Your task to perform on an android device: Go to CNN.com Image 0: 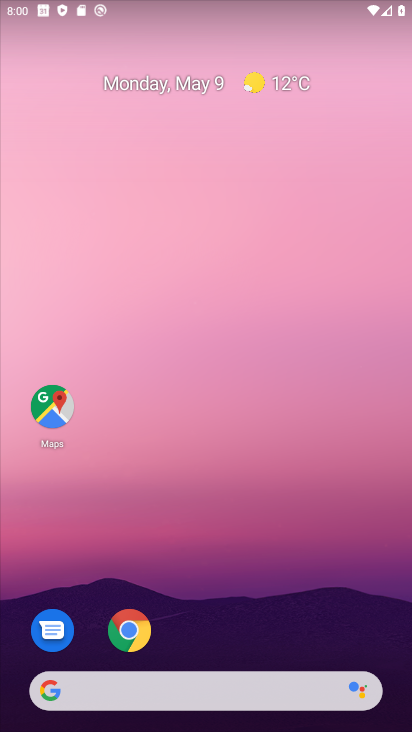
Step 0: click (130, 635)
Your task to perform on an android device: Go to CNN.com Image 1: 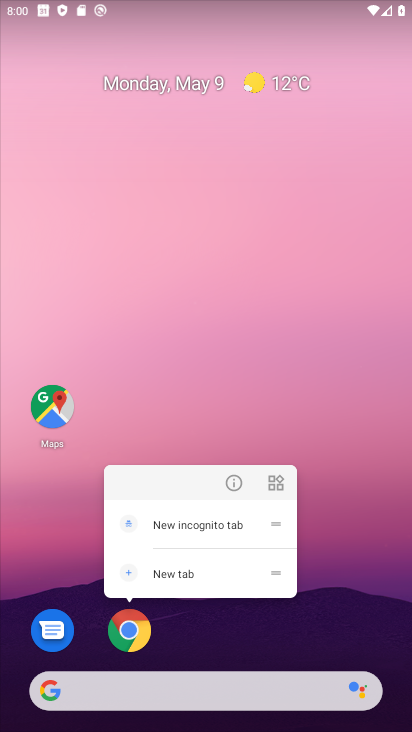
Step 1: click (127, 630)
Your task to perform on an android device: Go to CNN.com Image 2: 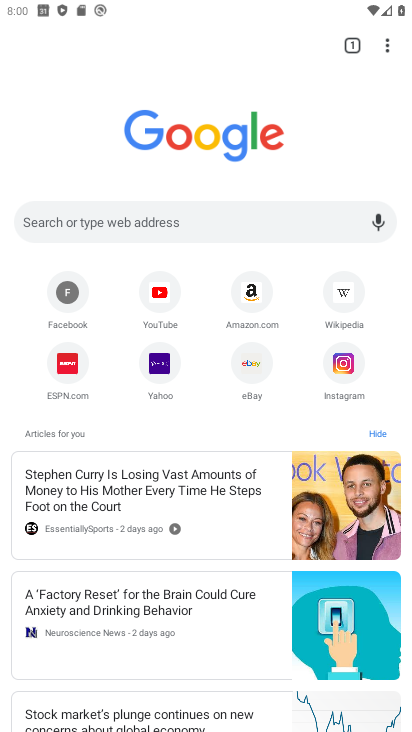
Step 2: click (136, 217)
Your task to perform on an android device: Go to CNN.com Image 3: 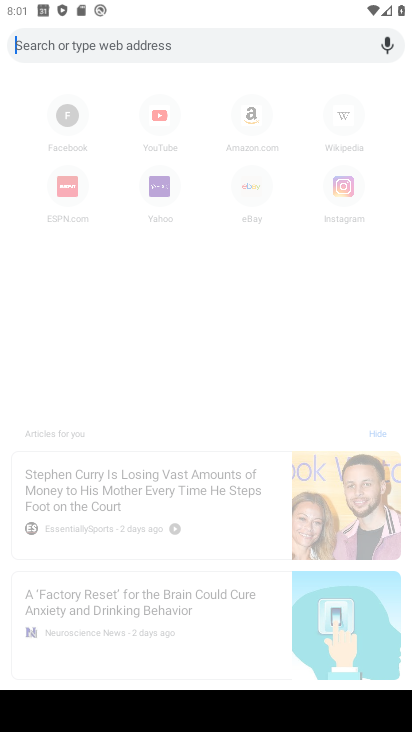
Step 3: type "CNN.com"
Your task to perform on an android device: Go to CNN.com Image 4: 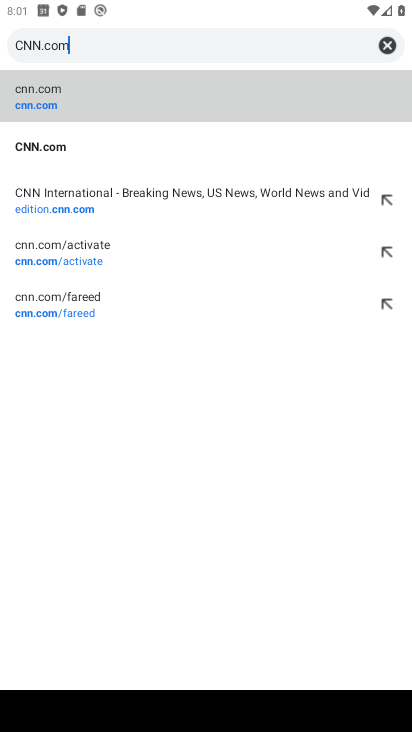
Step 4: click (25, 143)
Your task to perform on an android device: Go to CNN.com Image 5: 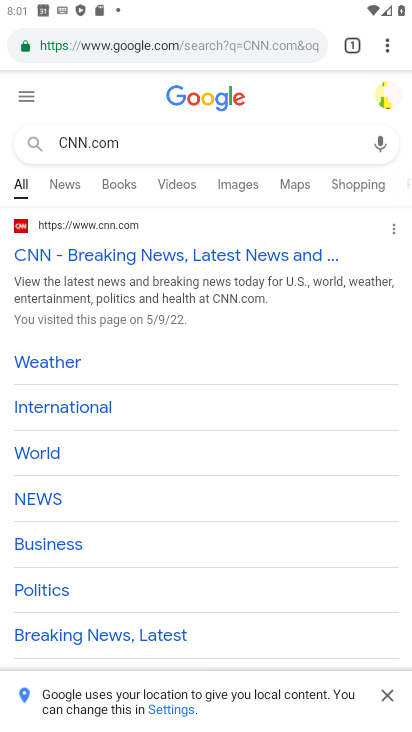
Step 5: click (138, 260)
Your task to perform on an android device: Go to CNN.com Image 6: 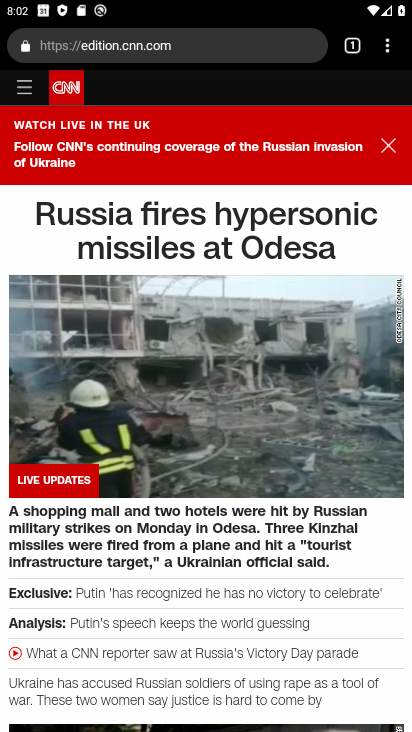
Step 6: task complete